Your task to perform on an android device: toggle priority inbox in the gmail app Image 0: 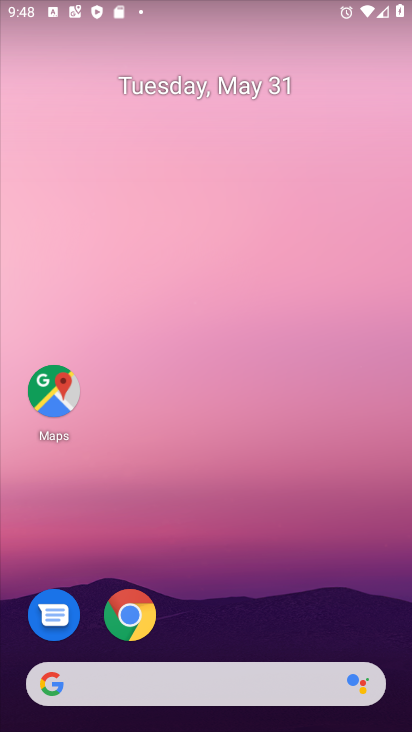
Step 0: drag from (382, 625) to (331, 62)
Your task to perform on an android device: toggle priority inbox in the gmail app Image 1: 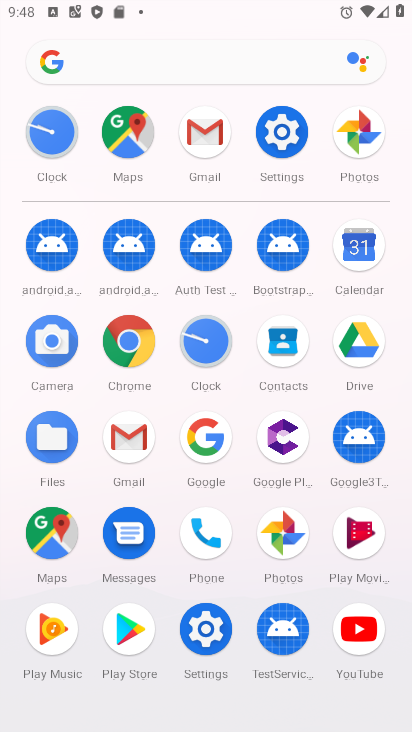
Step 1: click (127, 440)
Your task to perform on an android device: toggle priority inbox in the gmail app Image 2: 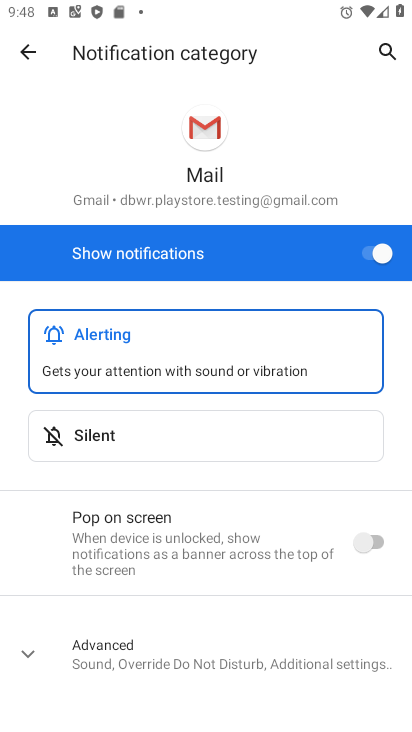
Step 2: press back button
Your task to perform on an android device: toggle priority inbox in the gmail app Image 3: 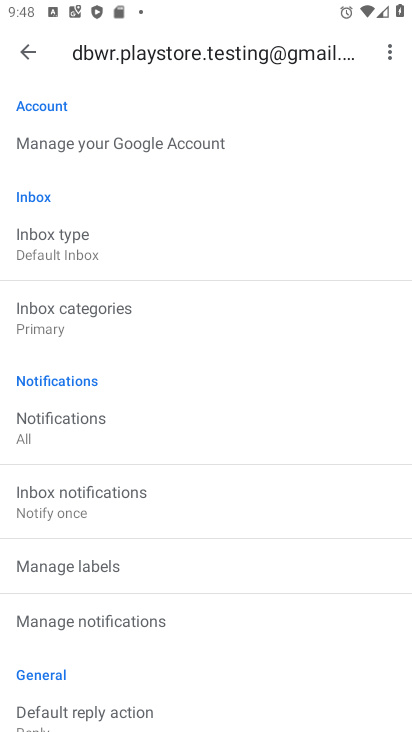
Step 3: click (232, 593)
Your task to perform on an android device: toggle priority inbox in the gmail app Image 4: 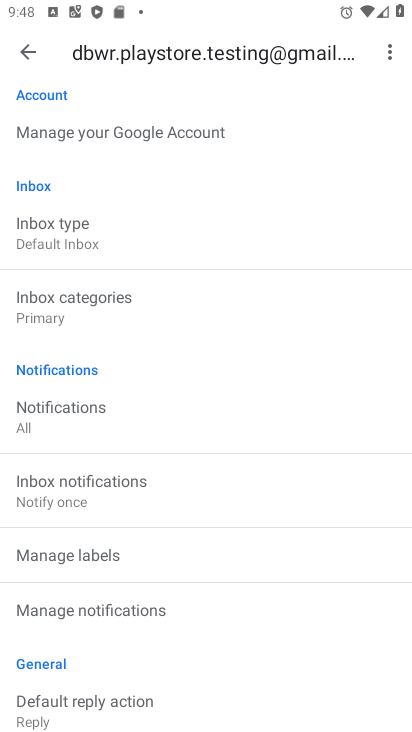
Step 4: click (45, 235)
Your task to perform on an android device: toggle priority inbox in the gmail app Image 5: 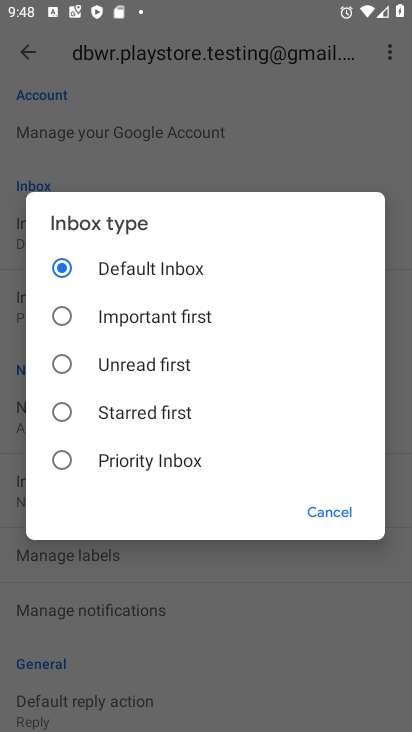
Step 5: click (57, 457)
Your task to perform on an android device: toggle priority inbox in the gmail app Image 6: 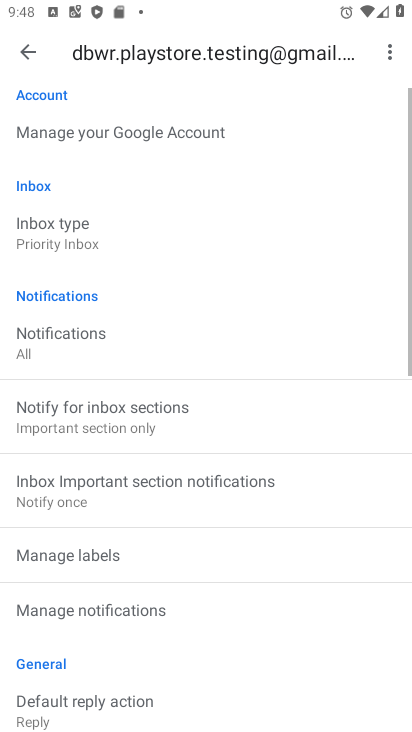
Step 6: task complete